Your task to perform on an android device: Do I have any events this weekend? Image 0: 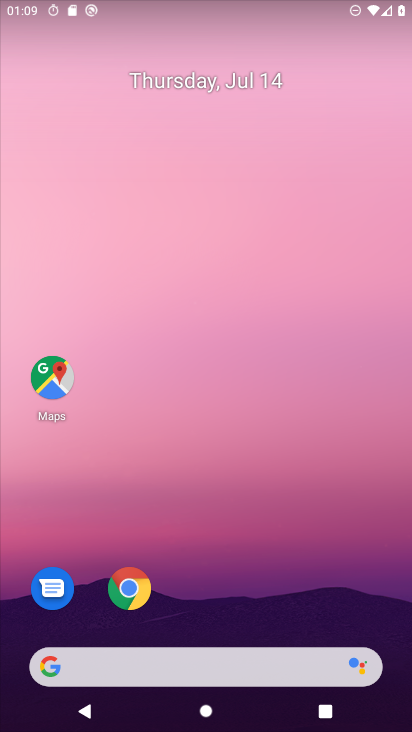
Step 0: drag from (204, 669) to (367, 64)
Your task to perform on an android device: Do I have any events this weekend? Image 1: 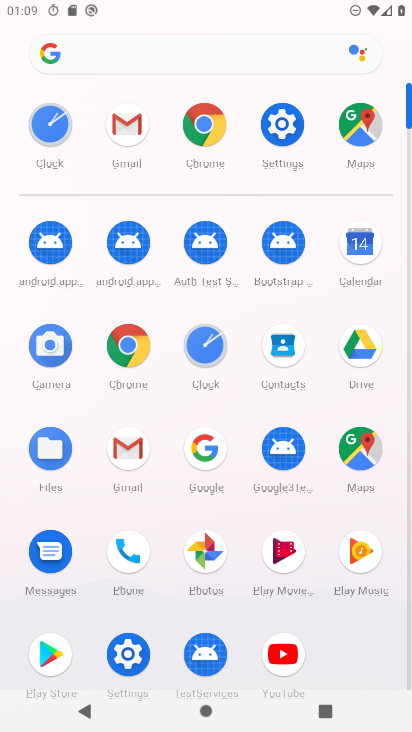
Step 1: click (360, 251)
Your task to perform on an android device: Do I have any events this weekend? Image 2: 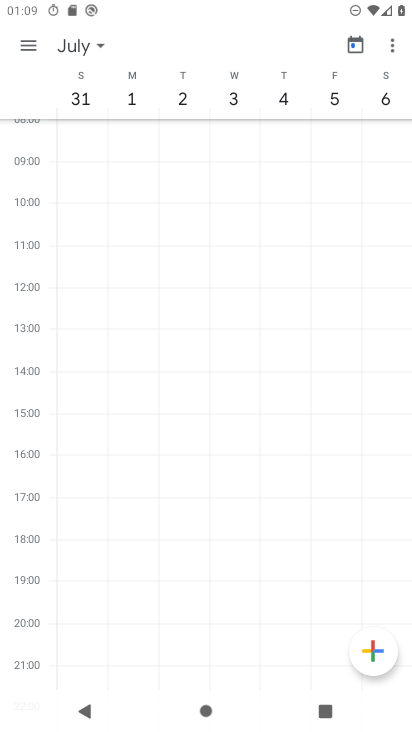
Step 2: click (77, 46)
Your task to perform on an android device: Do I have any events this weekend? Image 3: 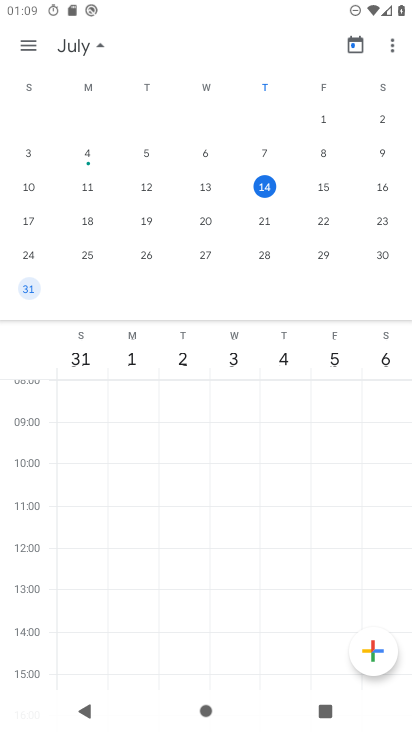
Step 3: click (385, 182)
Your task to perform on an android device: Do I have any events this weekend? Image 4: 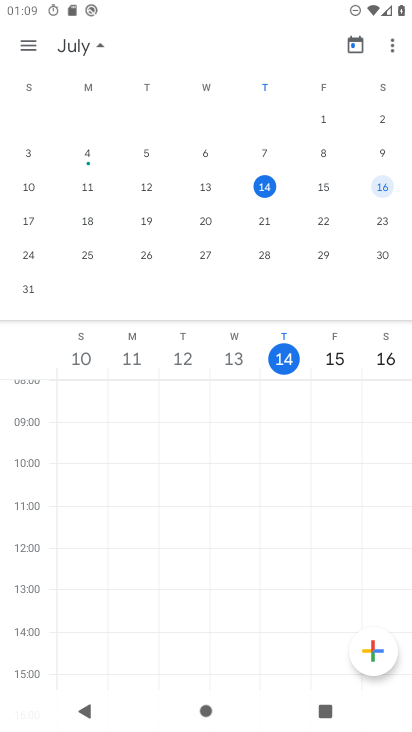
Step 4: click (21, 33)
Your task to perform on an android device: Do I have any events this weekend? Image 5: 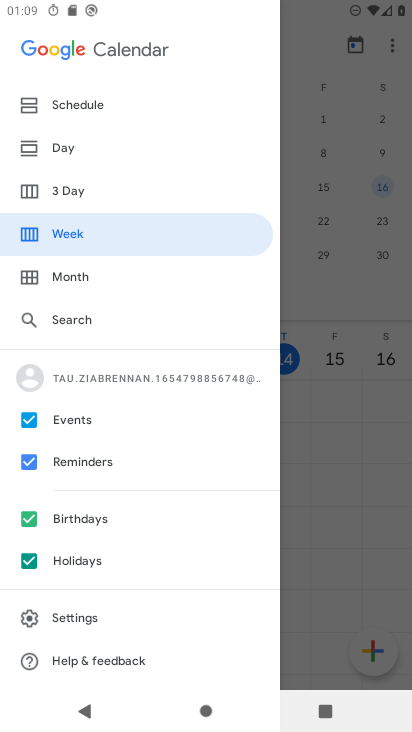
Step 5: click (74, 146)
Your task to perform on an android device: Do I have any events this weekend? Image 6: 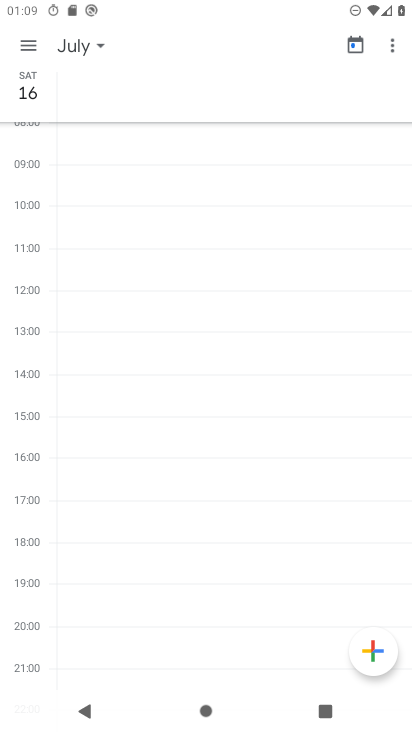
Step 6: click (26, 46)
Your task to perform on an android device: Do I have any events this weekend? Image 7: 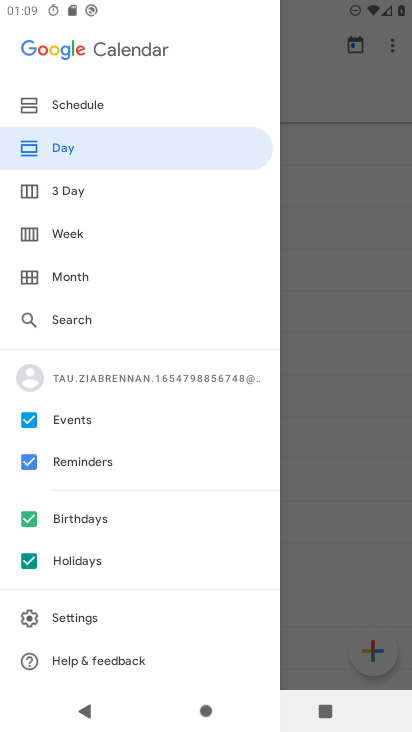
Step 7: click (81, 102)
Your task to perform on an android device: Do I have any events this weekend? Image 8: 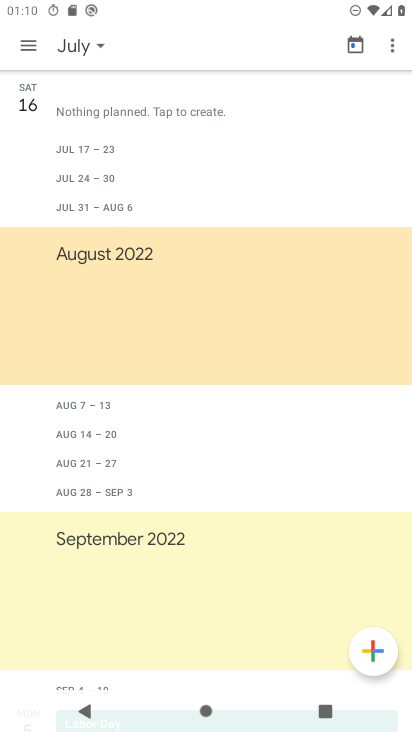
Step 8: task complete